Your task to perform on an android device: Go to accessibility settings Image 0: 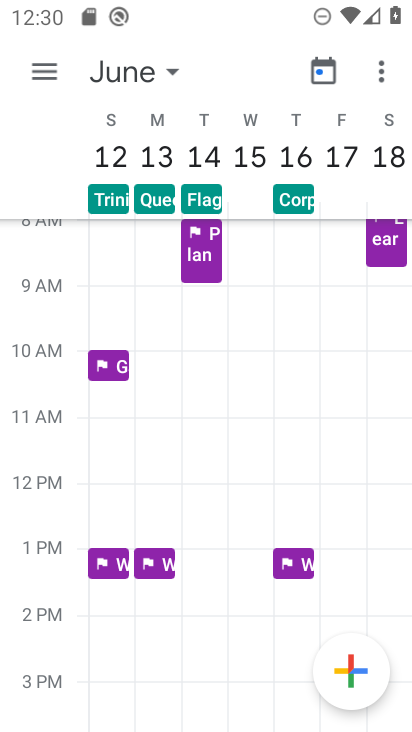
Step 0: press home button
Your task to perform on an android device: Go to accessibility settings Image 1: 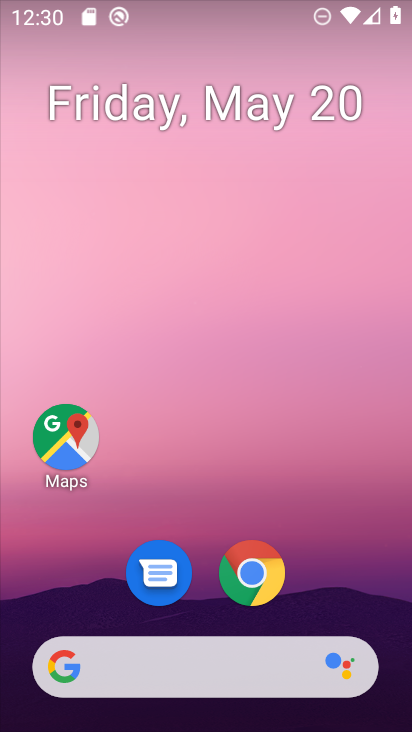
Step 1: drag from (182, 726) to (114, 173)
Your task to perform on an android device: Go to accessibility settings Image 2: 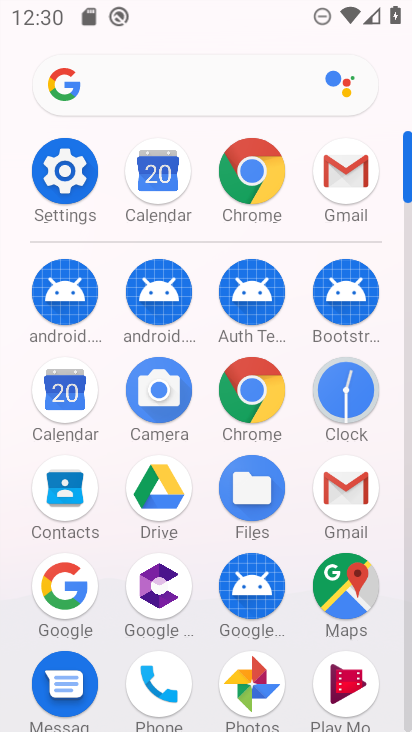
Step 2: click (63, 162)
Your task to perform on an android device: Go to accessibility settings Image 3: 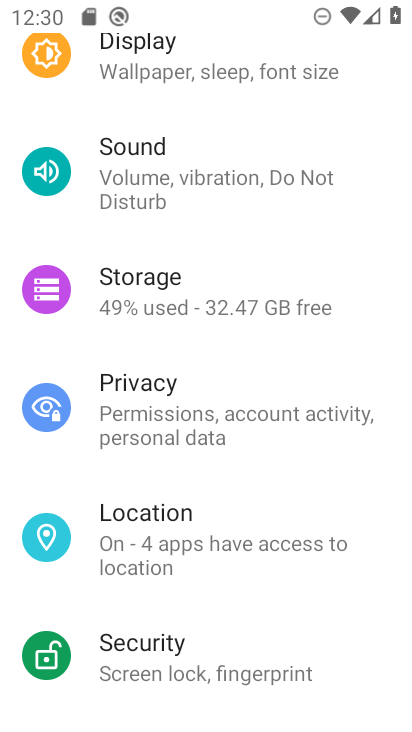
Step 3: drag from (177, 599) to (141, 223)
Your task to perform on an android device: Go to accessibility settings Image 4: 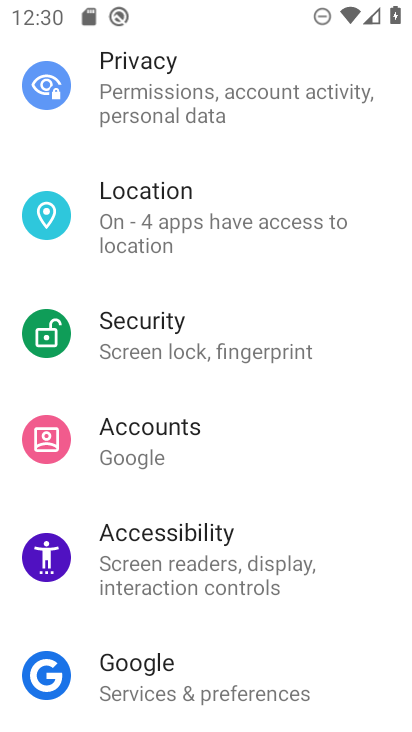
Step 4: click (186, 547)
Your task to perform on an android device: Go to accessibility settings Image 5: 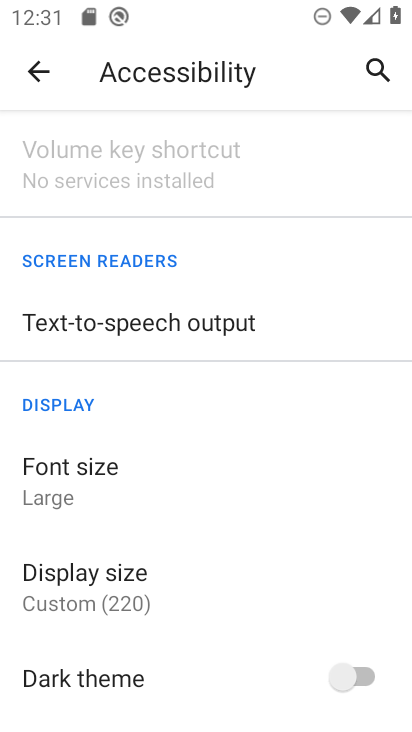
Step 5: task complete